Your task to perform on an android device: see creations saved in the google photos Image 0: 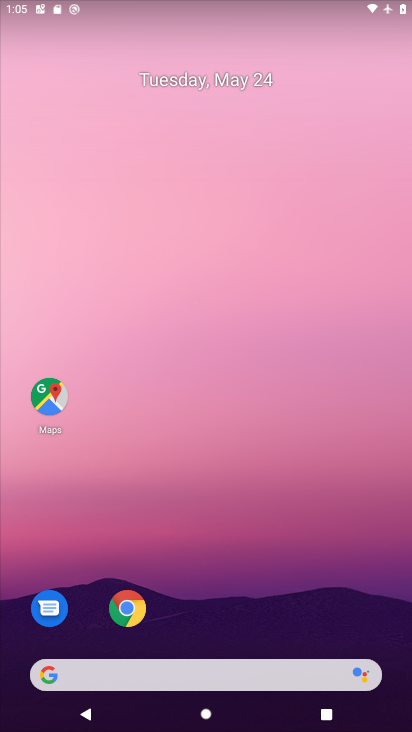
Step 0: drag from (312, 613) to (294, 65)
Your task to perform on an android device: see creations saved in the google photos Image 1: 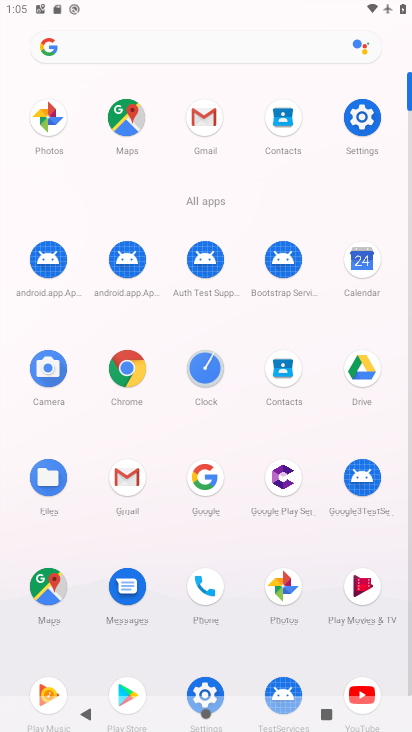
Step 1: click (294, 598)
Your task to perform on an android device: see creations saved in the google photos Image 2: 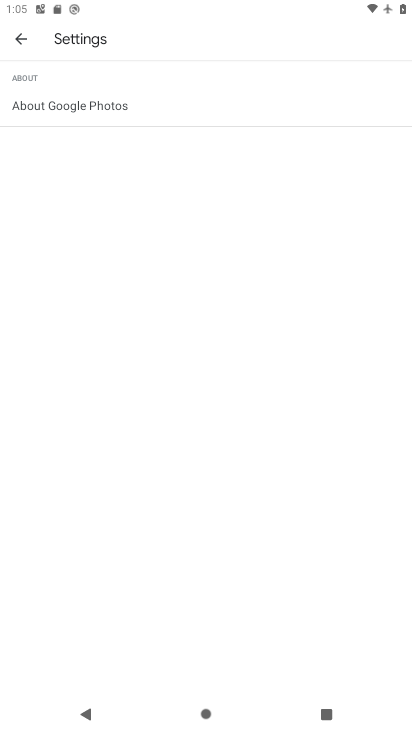
Step 2: click (26, 34)
Your task to perform on an android device: see creations saved in the google photos Image 3: 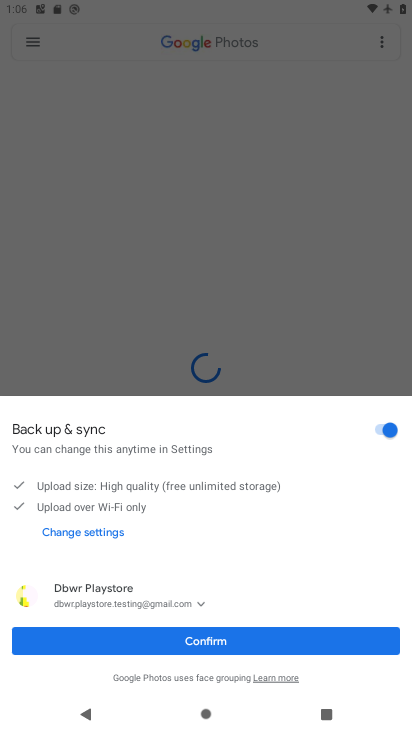
Step 3: click (263, 637)
Your task to perform on an android device: see creations saved in the google photos Image 4: 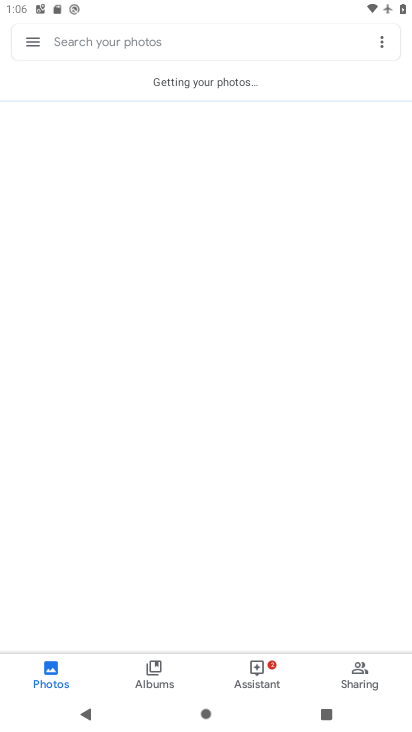
Step 4: click (250, 673)
Your task to perform on an android device: see creations saved in the google photos Image 5: 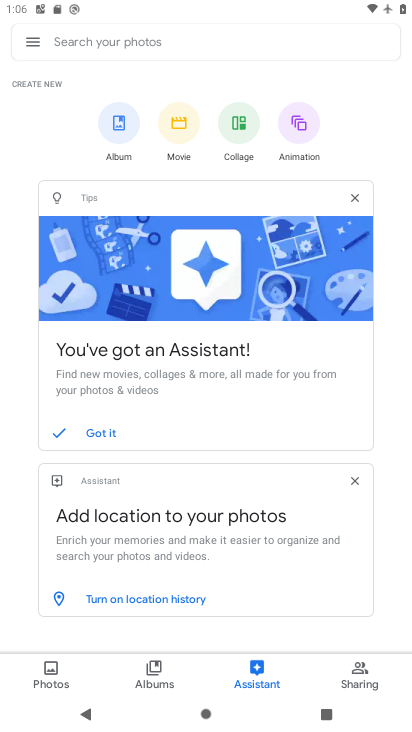
Step 5: task complete